Your task to perform on an android device: turn notification dots off Image 0: 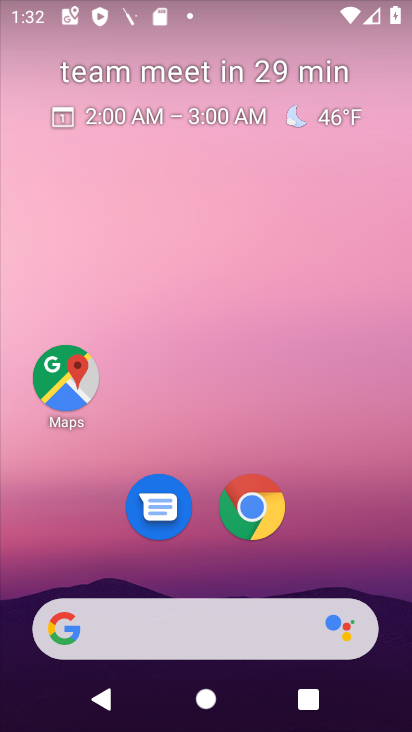
Step 0: drag from (279, 657) to (203, 319)
Your task to perform on an android device: turn notification dots off Image 1: 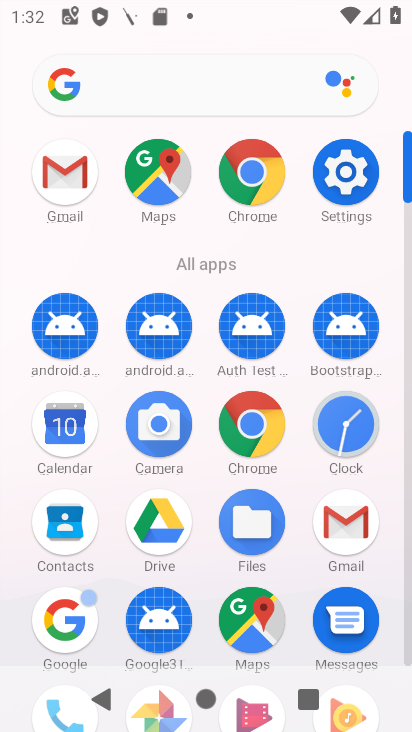
Step 1: click (335, 178)
Your task to perform on an android device: turn notification dots off Image 2: 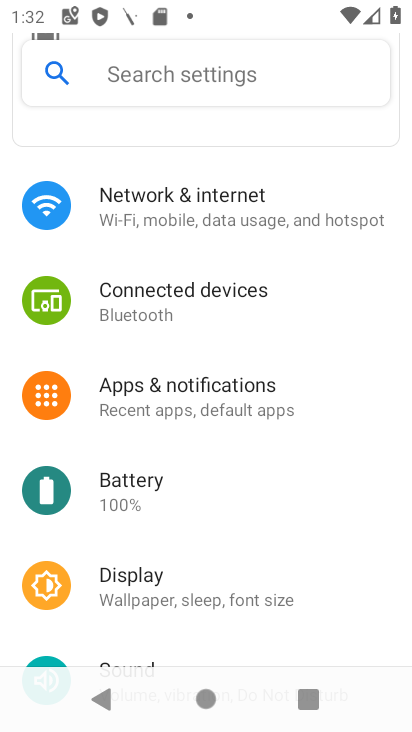
Step 2: click (135, 79)
Your task to perform on an android device: turn notification dots off Image 3: 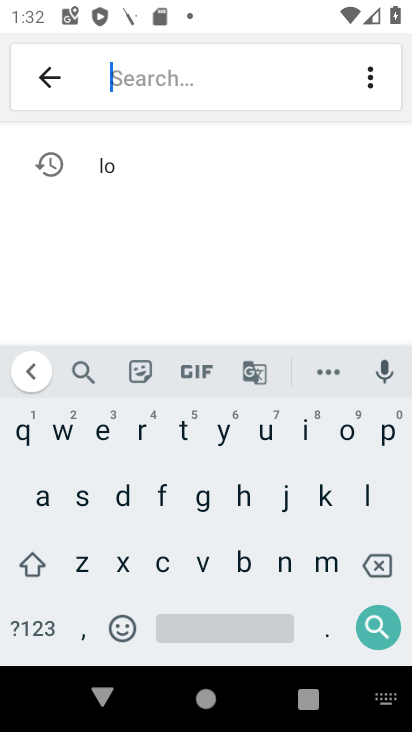
Step 3: click (124, 494)
Your task to perform on an android device: turn notification dots off Image 4: 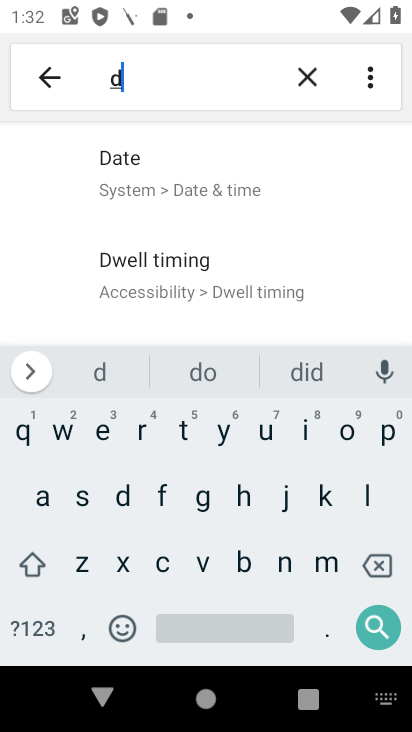
Step 4: click (336, 439)
Your task to perform on an android device: turn notification dots off Image 5: 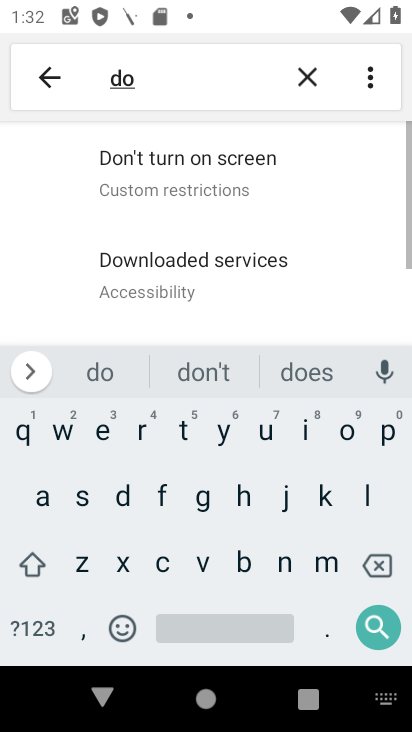
Step 5: click (175, 430)
Your task to perform on an android device: turn notification dots off Image 6: 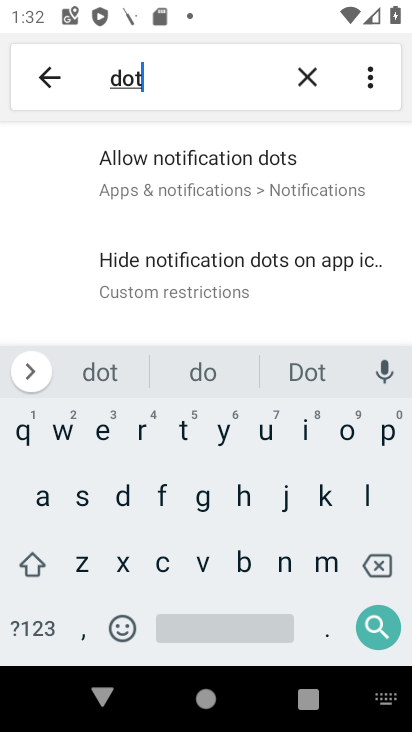
Step 6: click (223, 187)
Your task to perform on an android device: turn notification dots off Image 7: 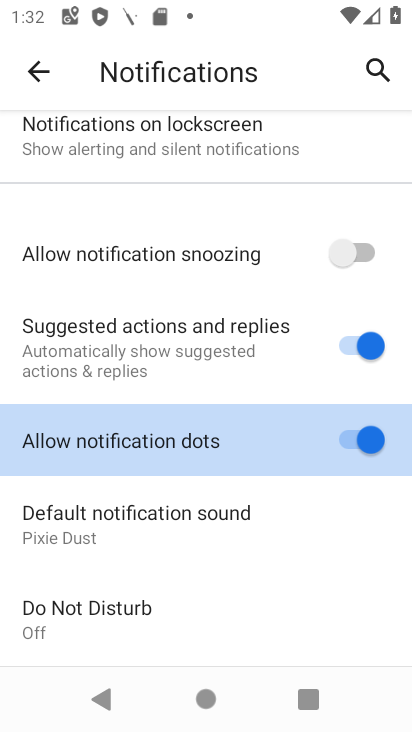
Step 7: click (269, 443)
Your task to perform on an android device: turn notification dots off Image 8: 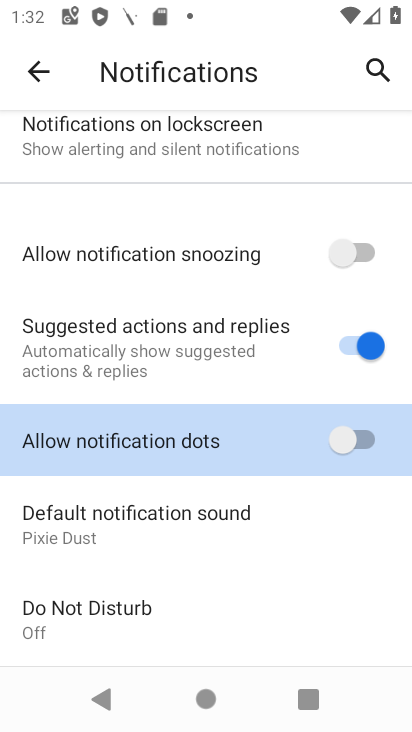
Step 8: task complete